Your task to perform on an android device: What's on my calendar tomorrow? Image 0: 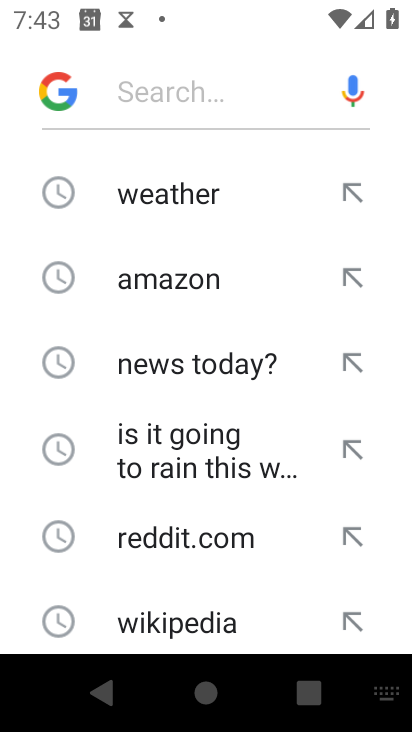
Step 0: press home button
Your task to perform on an android device: What's on my calendar tomorrow? Image 1: 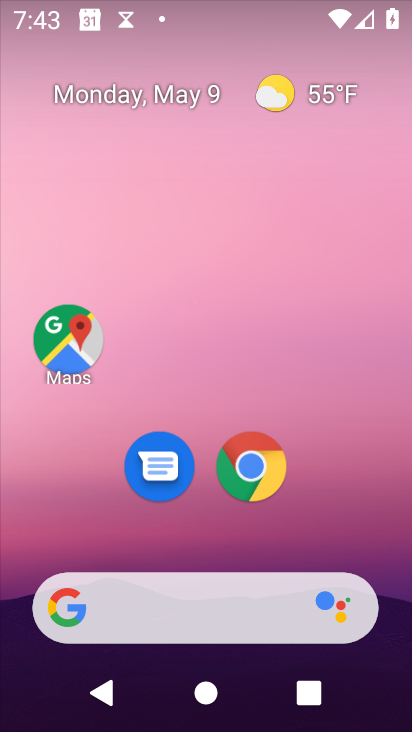
Step 1: drag from (354, 530) to (99, 129)
Your task to perform on an android device: What's on my calendar tomorrow? Image 2: 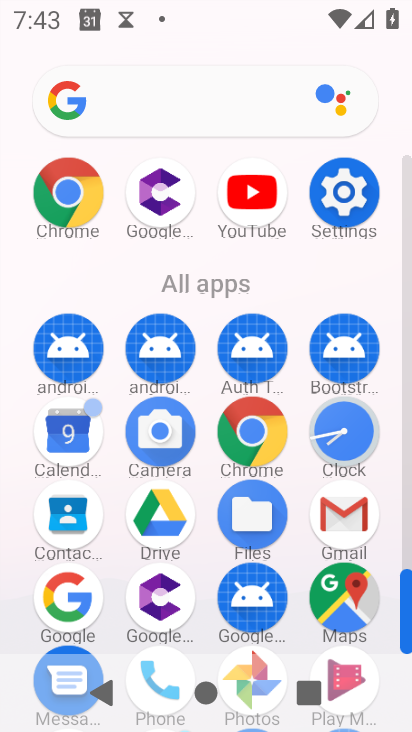
Step 2: click (80, 439)
Your task to perform on an android device: What's on my calendar tomorrow? Image 3: 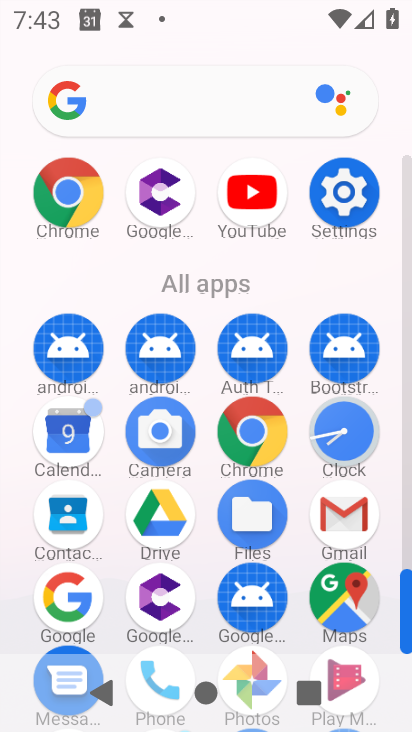
Step 3: click (78, 438)
Your task to perform on an android device: What's on my calendar tomorrow? Image 4: 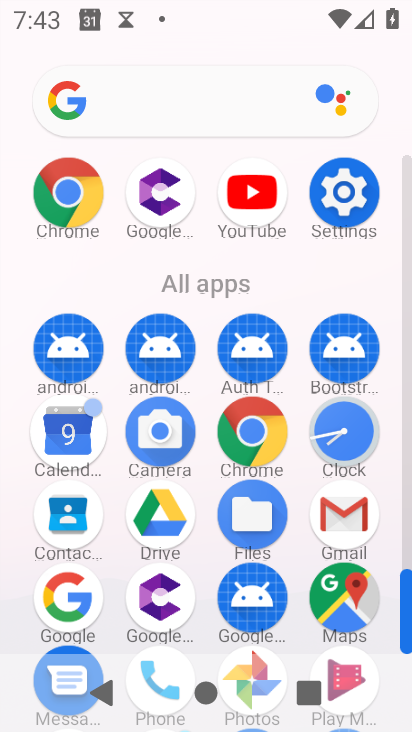
Step 4: click (77, 437)
Your task to perform on an android device: What's on my calendar tomorrow? Image 5: 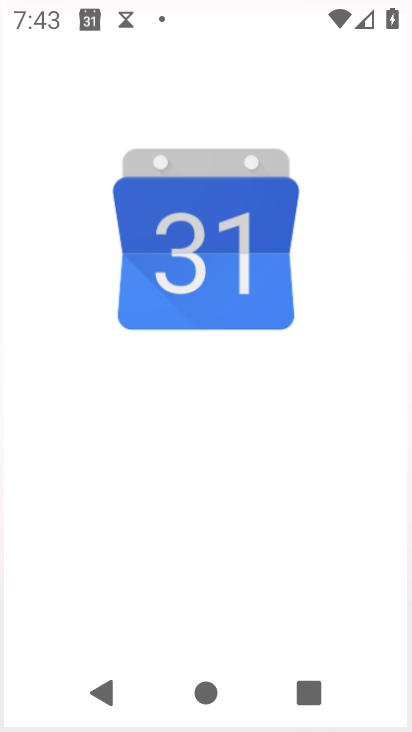
Step 5: click (77, 437)
Your task to perform on an android device: What's on my calendar tomorrow? Image 6: 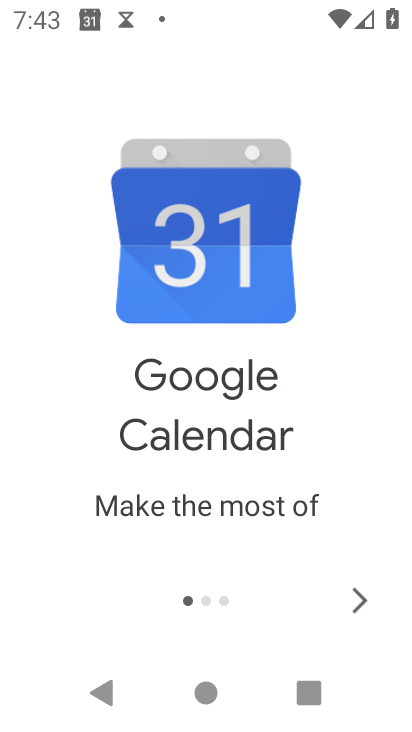
Step 6: click (349, 597)
Your task to perform on an android device: What's on my calendar tomorrow? Image 7: 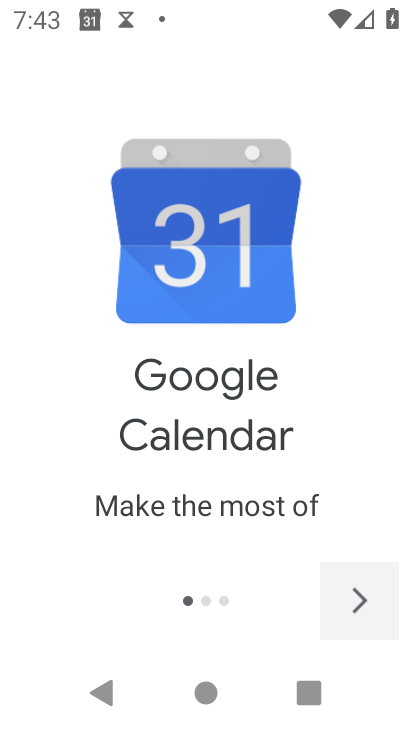
Step 7: click (349, 597)
Your task to perform on an android device: What's on my calendar tomorrow? Image 8: 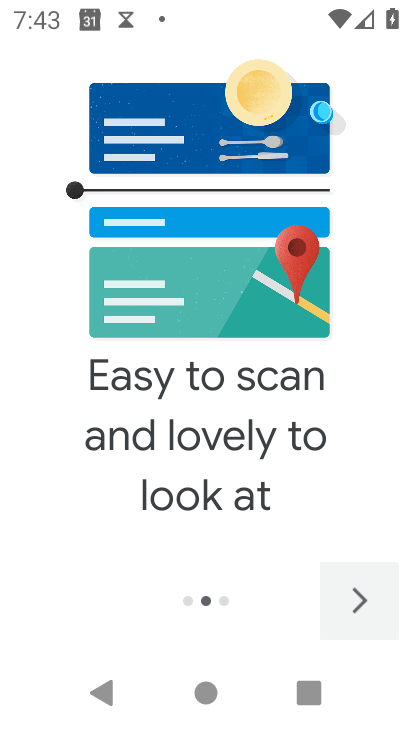
Step 8: click (349, 597)
Your task to perform on an android device: What's on my calendar tomorrow? Image 9: 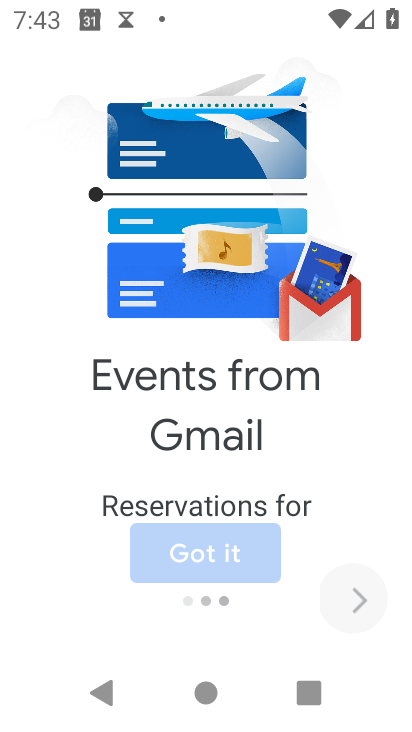
Step 9: click (349, 597)
Your task to perform on an android device: What's on my calendar tomorrow? Image 10: 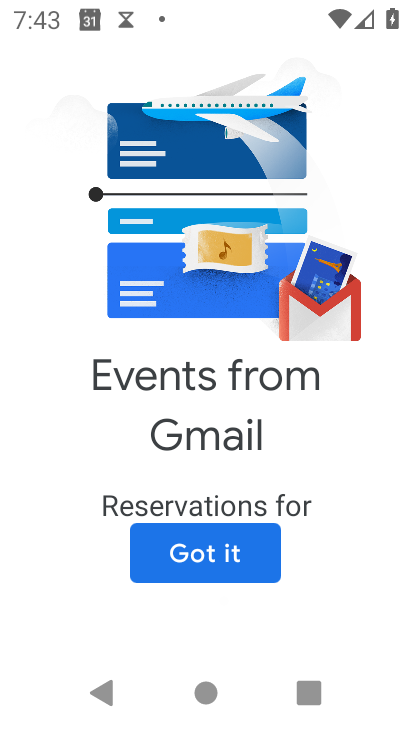
Step 10: click (349, 597)
Your task to perform on an android device: What's on my calendar tomorrow? Image 11: 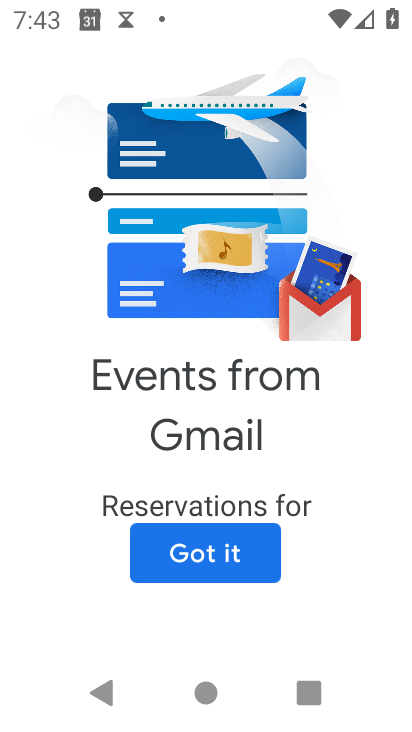
Step 11: click (209, 553)
Your task to perform on an android device: What's on my calendar tomorrow? Image 12: 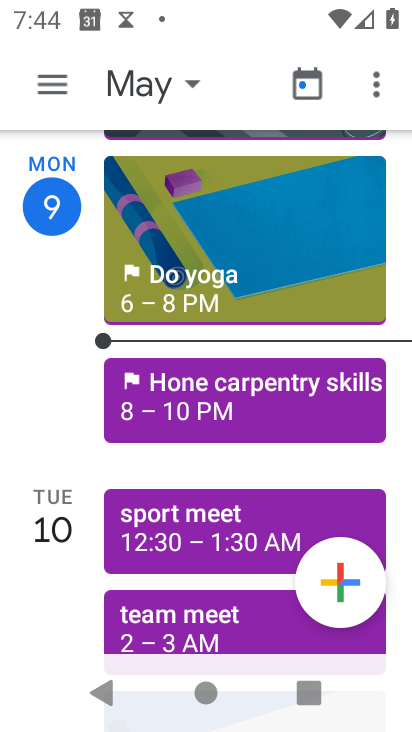
Step 12: task complete